Your task to perform on an android device: Open calendar and show me the second week of next month Image 0: 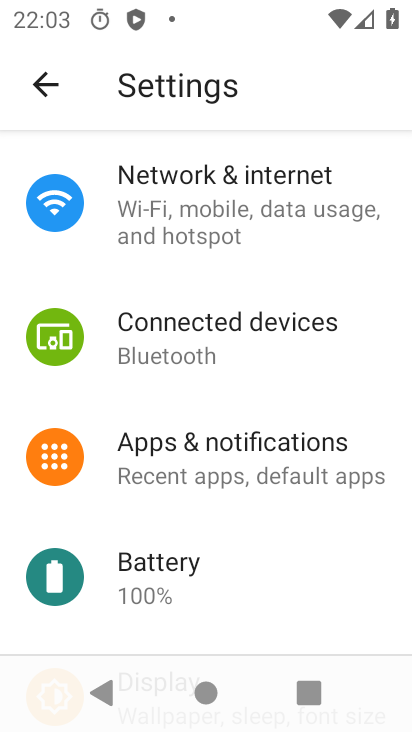
Step 0: press home button
Your task to perform on an android device: Open calendar and show me the second week of next month Image 1: 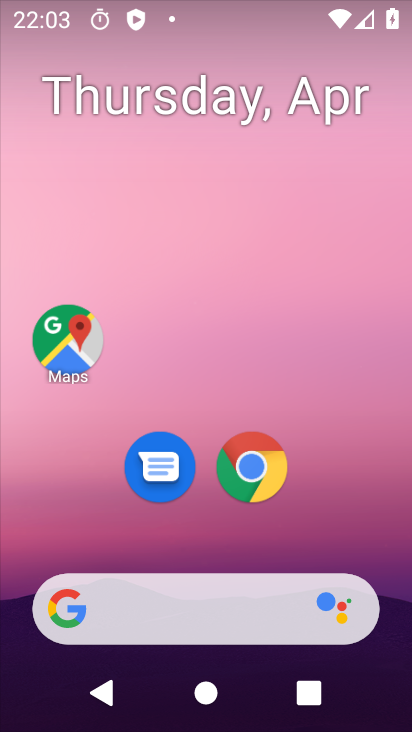
Step 1: drag from (236, 537) to (196, 0)
Your task to perform on an android device: Open calendar and show me the second week of next month Image 2: 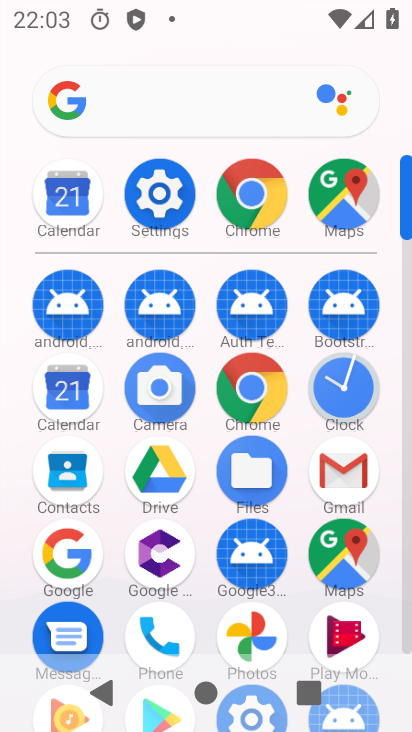
Step 2: click (70, 401)
Your task to perform on an android device: Open calendar and show me the second week of next month Image 3: 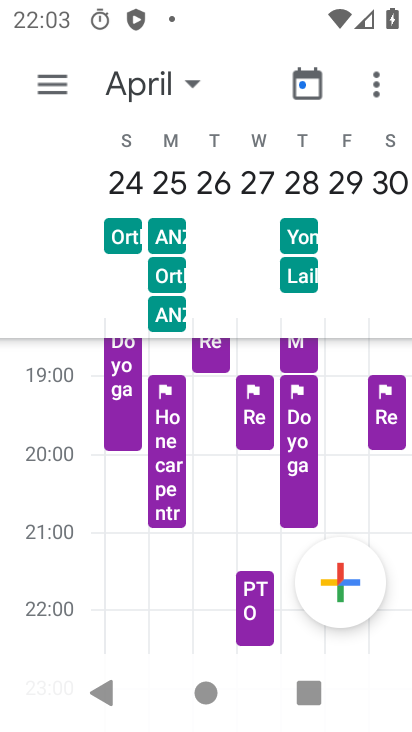
Step 3: task complete